Your task to perform on an android device: visit the assistant section in the google photos Image 0: 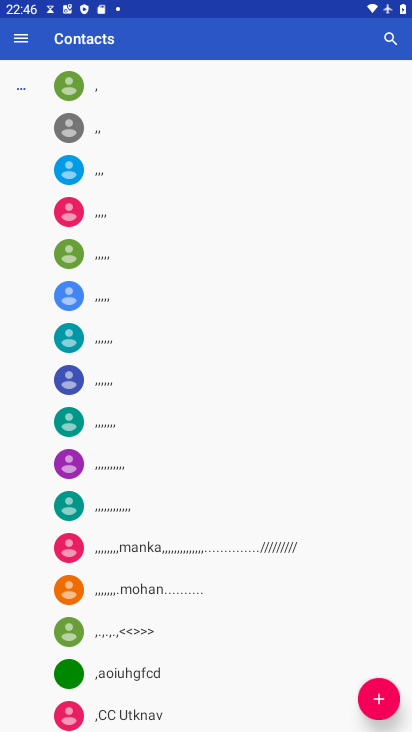
Step 0: press home button
Your task to perform on an android device: visit the assistant section in the google photos Image 1: 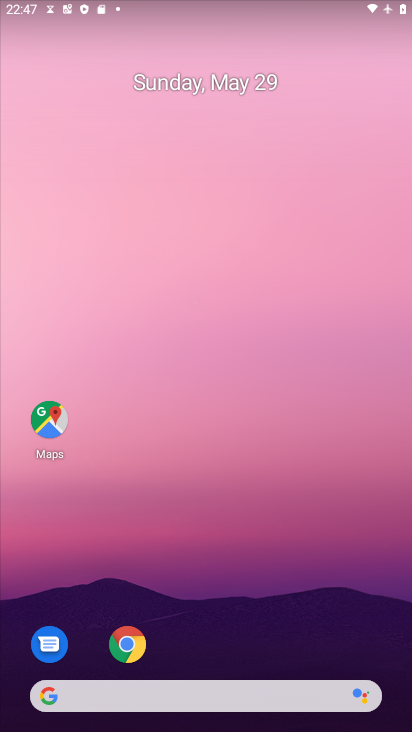
Step 1: drag from (240, 586) to (210, 259)
Your task to perform on an android device: visit the assistant section in the google photos Image 2: 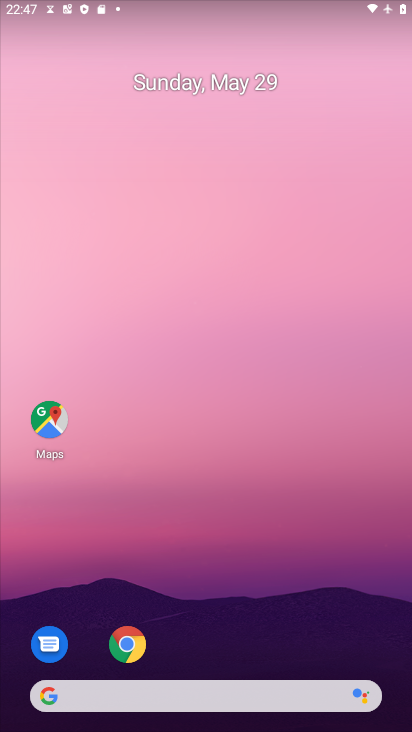
Step 2: drag from (227, 617) to (222, 311)
Your task to perform on an android device: visit the assistant section in the google photos Image 3: 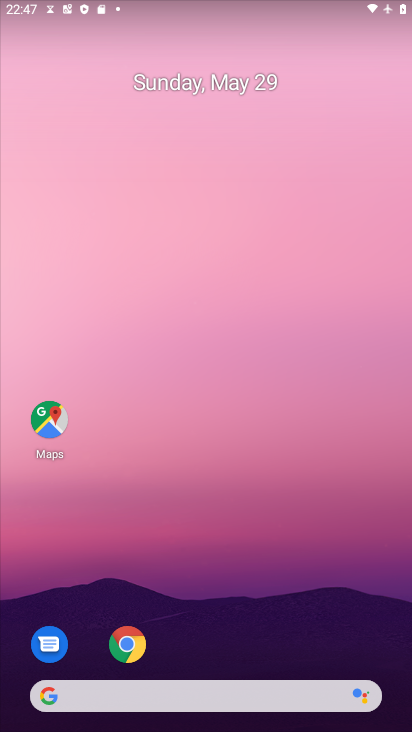
Step 3: drag from (217, 654) to (213, 316)
Your task to perform on an android device: visit the assistant section in the google photos Image 4: 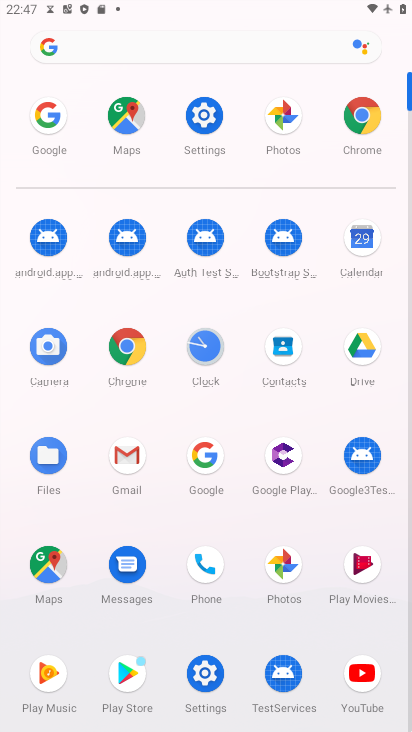
Step 4: click (273, 562)
Your task to perform on an android device: visit the assistant section in the google photos Image 5: 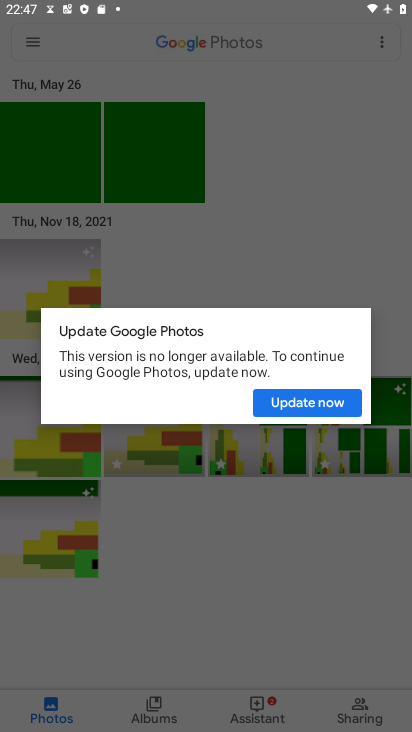
Step 5: click (164, 702)
Your task to perform on an android device: visit the assistant section in the google photos Image 6: 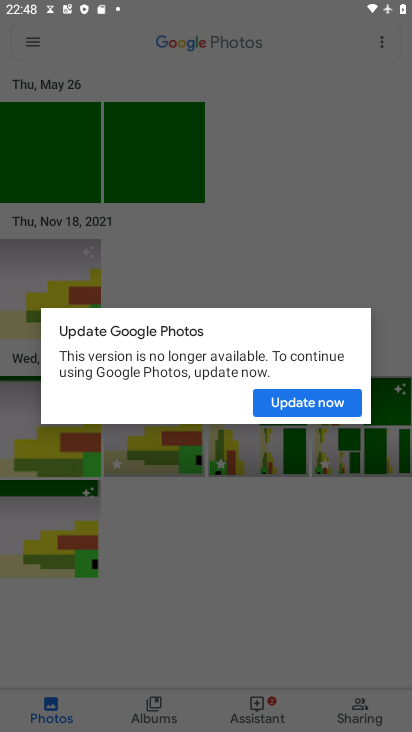
Step 6: click (346, 406)
Your task to perform on an android device: visit the assistant section in the google photos Image 7: 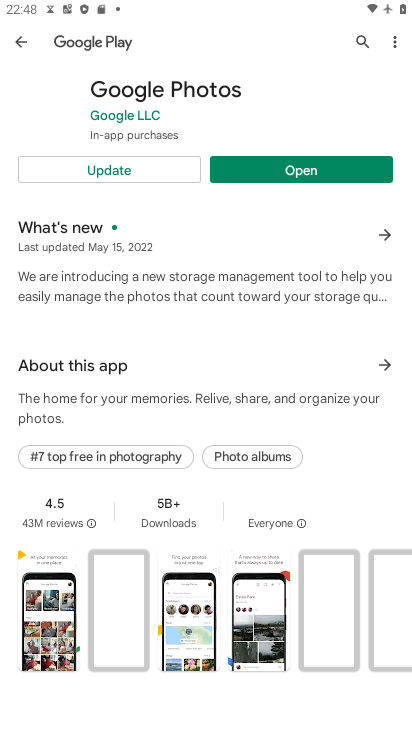
Step 7: press back button
Your task to perform on an android device: visit the assistant section in the google photos Image 8: 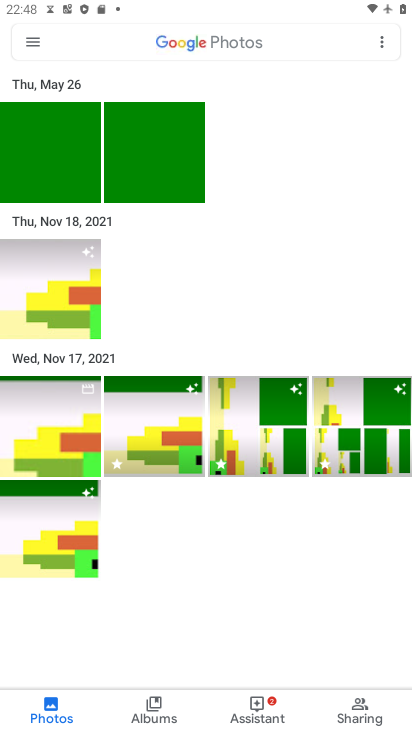
Step 8: click (260, 709)
Your task to perform on an android device: visit the assistant section in the google photos Image 9: 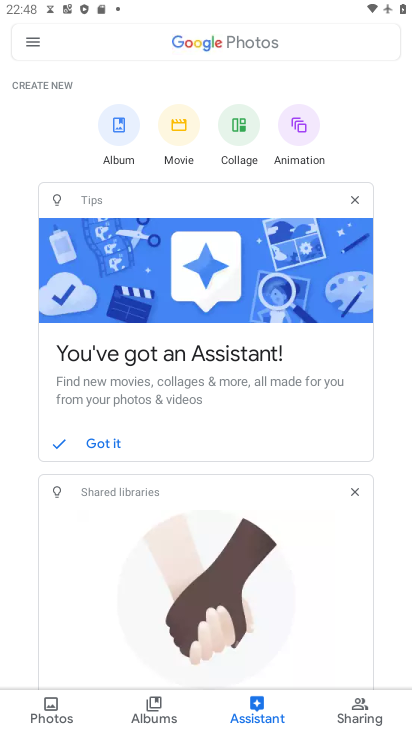
Step 9: task complete